Your task to perform on an android device: find snoozed emails in the gmail app Image 0: 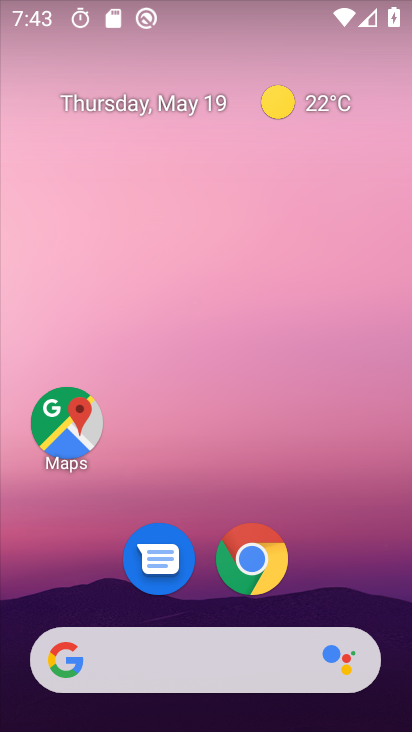
Step 0: drag from (326, 553) to (262, 33)
Your task to perform on an android device: find snoozed emails in the gmail app Image 1: 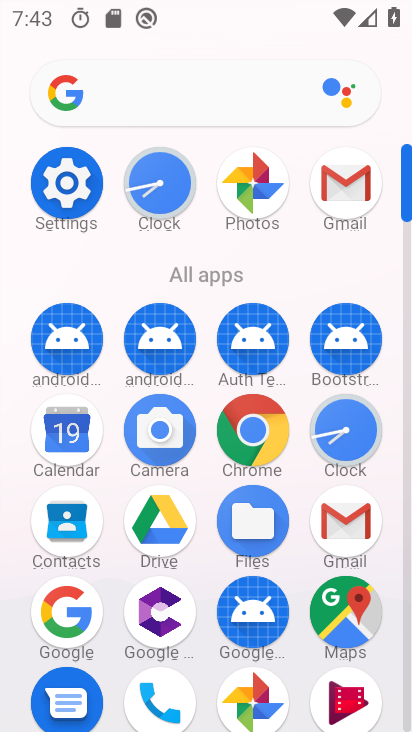
Step 1: click (362, 510)
Your task to perform on an android device: find snoozed emails in the gmail app Image 2: 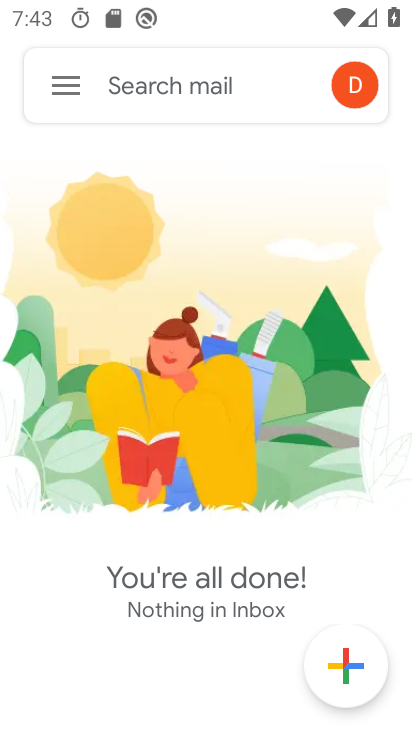
Step 2: click (71, 80)
Your task to perform on an android device: find snoozed emails in the gmail app Image 3: 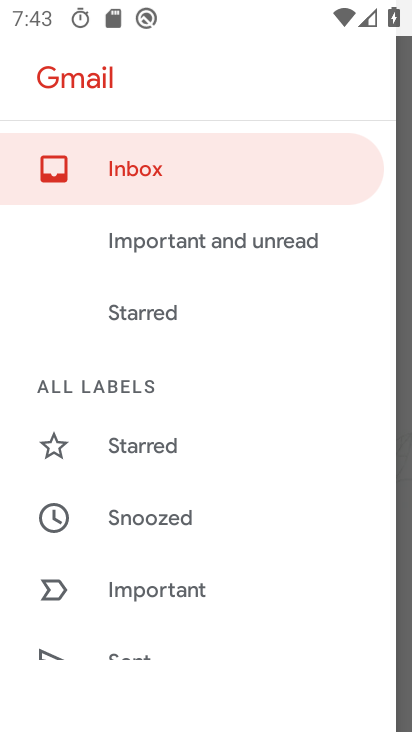
Step 3: click (185, 504)
Your task to perform on an android device: find snoozed emails in the gmail app Image 4: 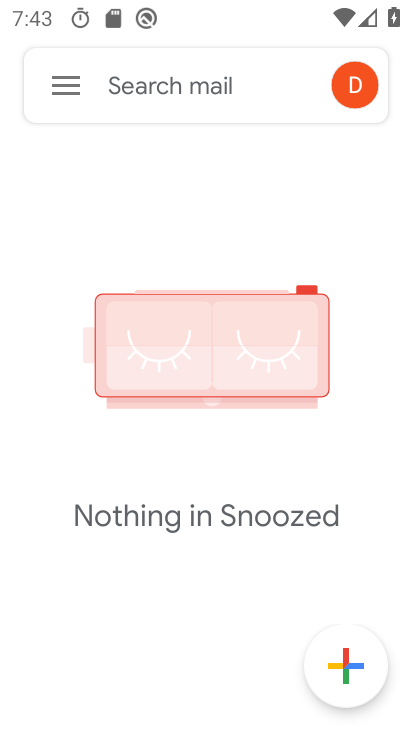
Step 4: task complete